Your task to perform on an android device: install app "Viber Messenger" Image 0: 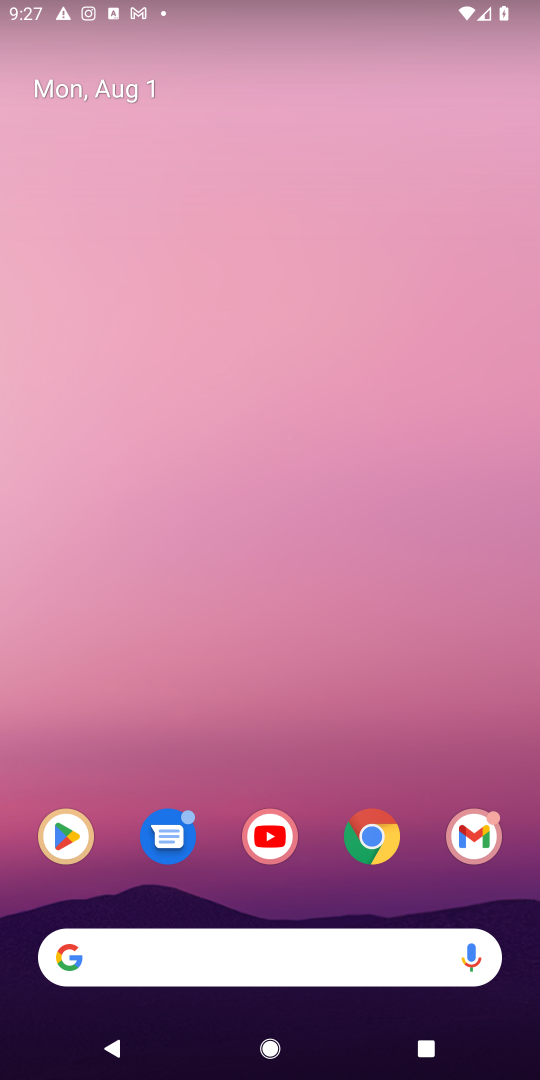
Step 0: press home button
Your task to perform on an android device: install app "Viber Messenger" Image 1: 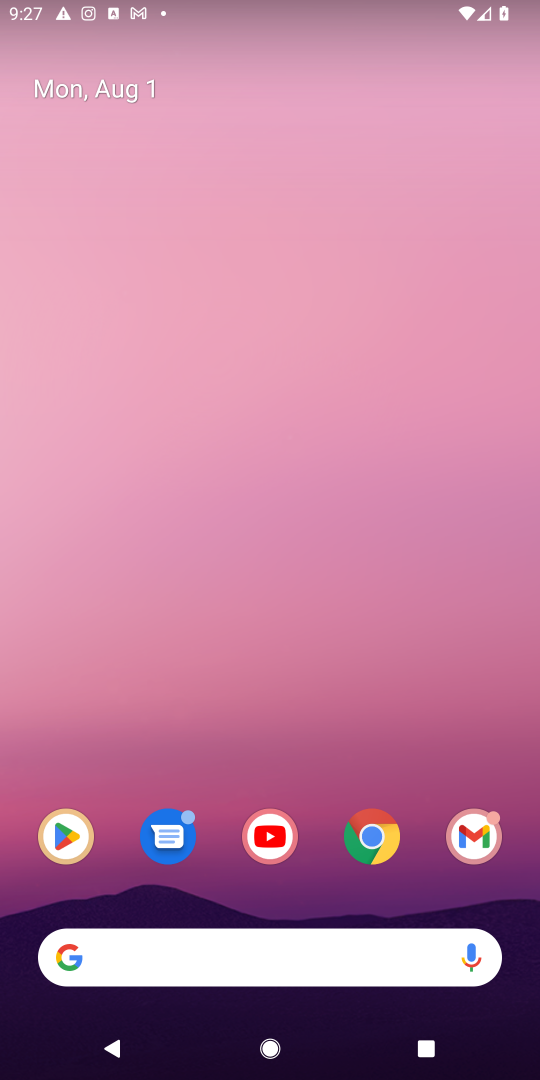
Step 1: click (69, 818)
Your task to perform on an android device: install app "Viber Messenger" Image 2: 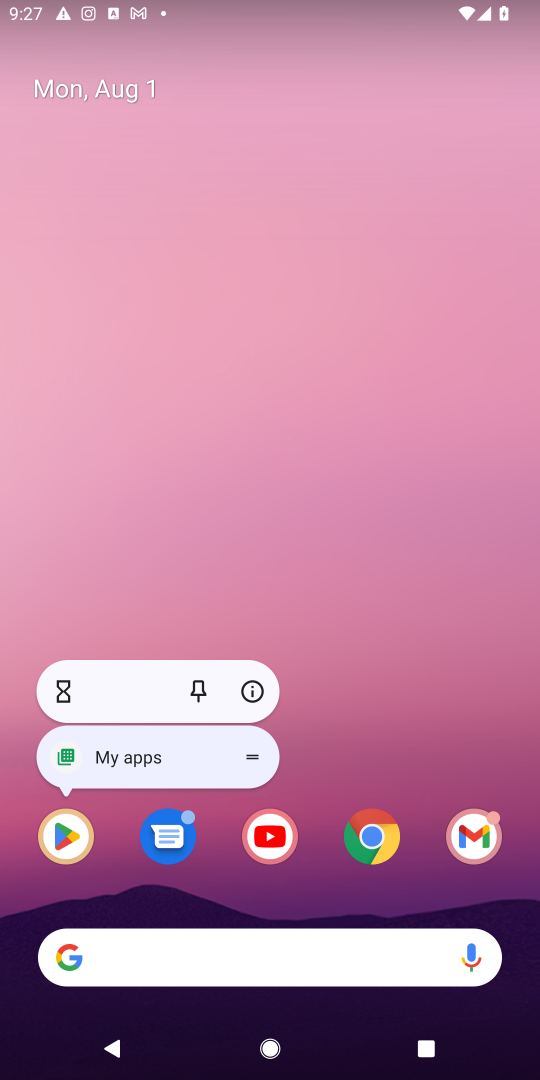
Step 2: click (62, 831)
Your task to perform on an android device: install app "Viber Messenger" Image 3: 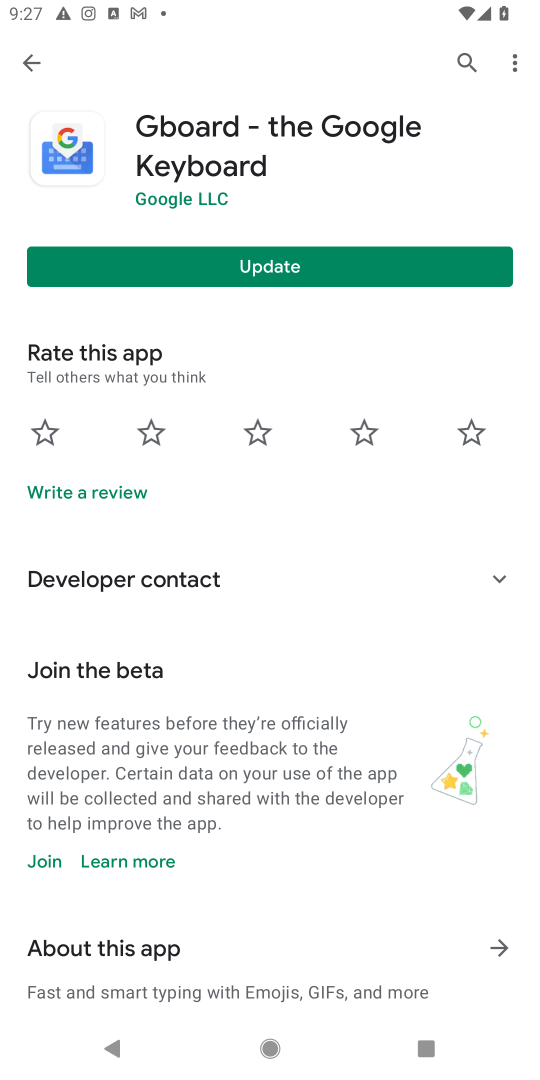
Step 3: click (463, 57)
Your task to perform on an android device: install app "Viber Messenger" Image 4: 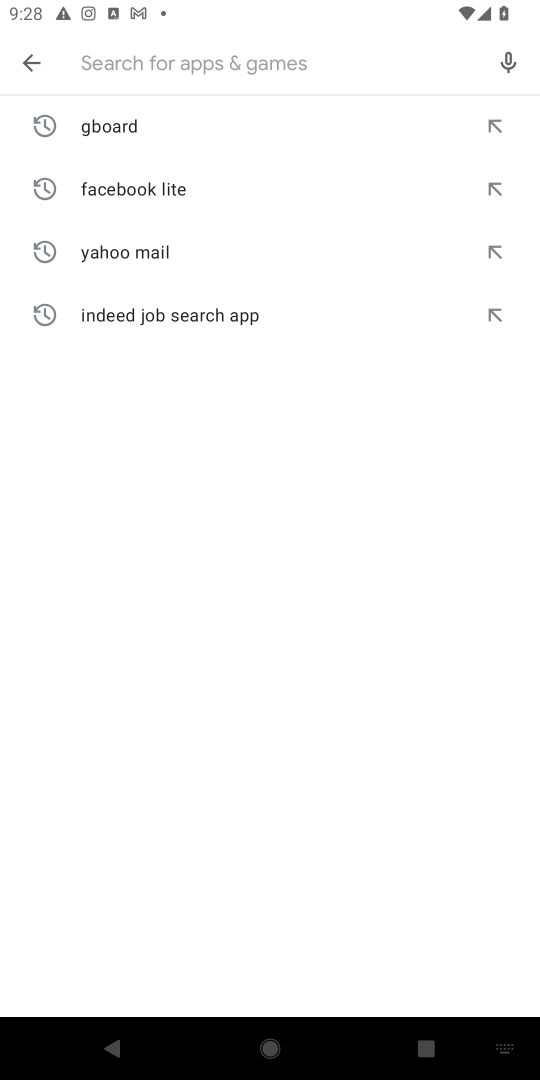
Step 4: type "Viber Messenger"
Your task to perform on an android device: install app "Viber Messenger" Image 5: 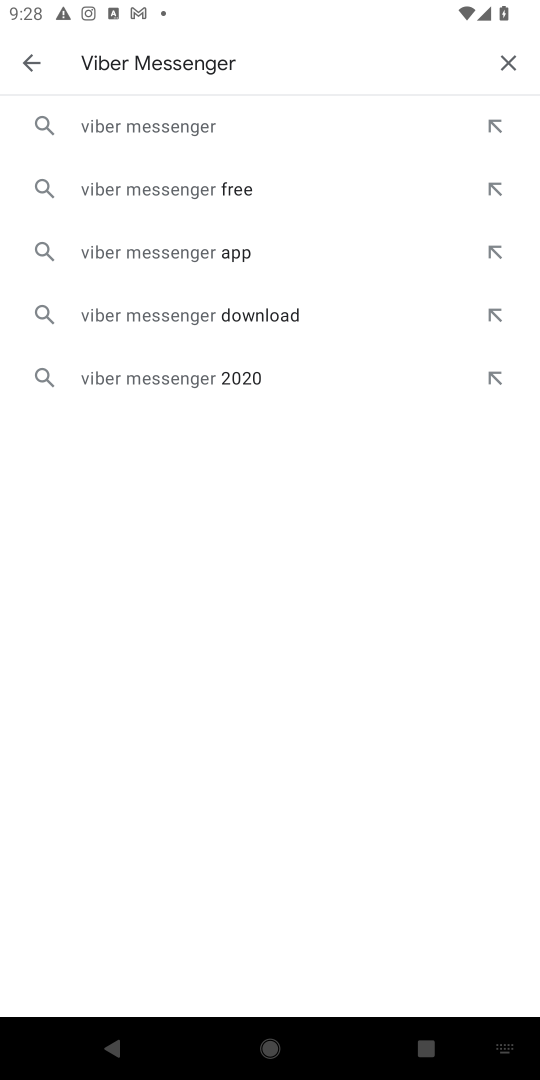
Step 5: click (89, 126)
Your task to perform on an android device: install app "Viber Messenger" Image 6: 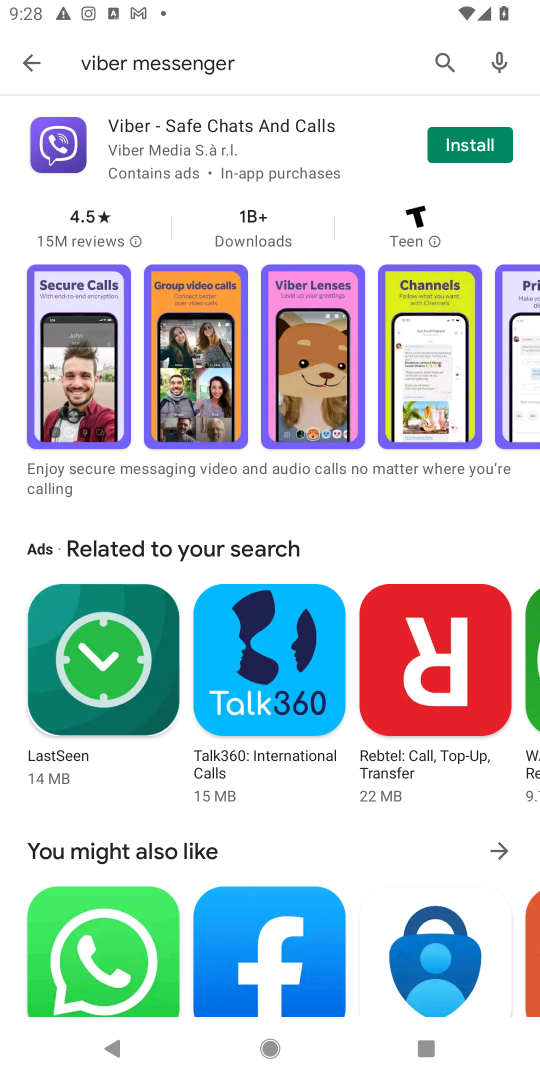
Step 6: click (477, 148)
Your task to perform on an android device: install app "Viber Messenger" Image 7: 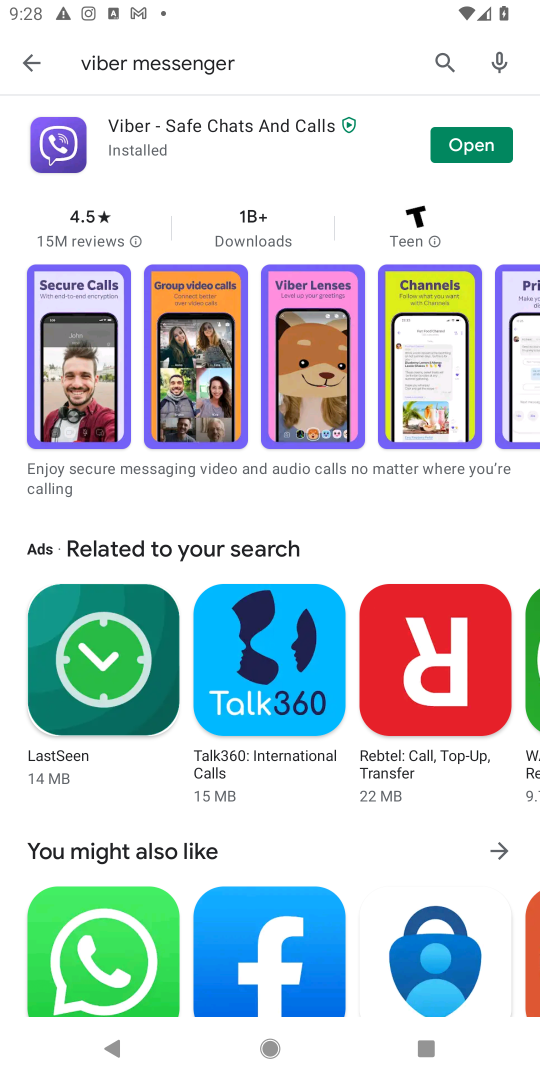
Step 7: task complete